Your task to perform on an android device: choose inbox layout in the gmail app Image 0: 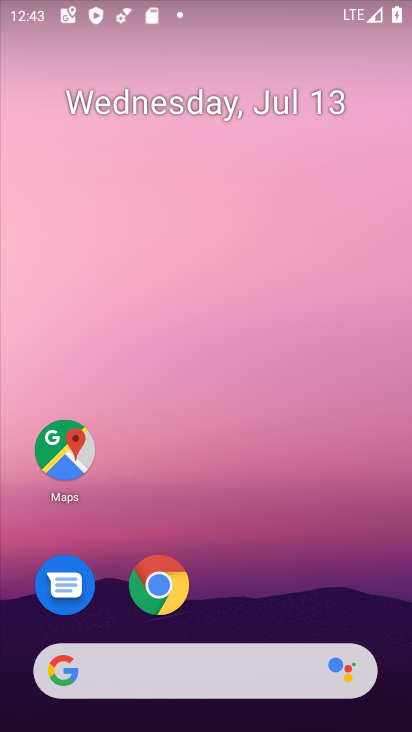
Step 0: drag from (228, 594) to (181, 25)
Your task to perform on an android device: choose inbox layout in the gmail app Image 1: 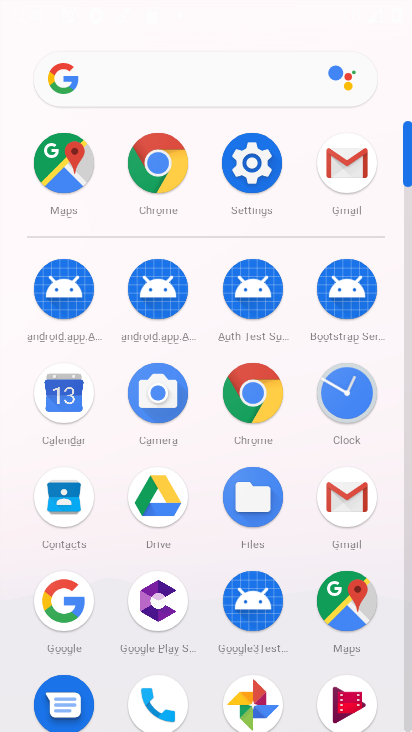
Step 1: click (350, 170)
Your task to perform on an android device: choose inbox layout in the gmail app Image 2: 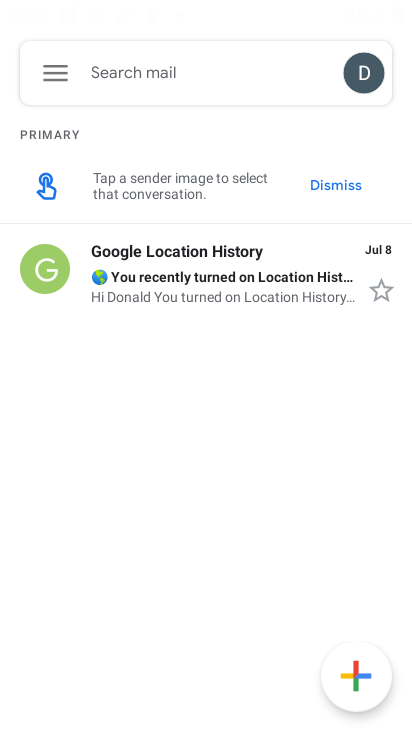
Step 2: click (57, 75)
Your task to perform on an android device: choose inbox layout in the gmail app Image 3: 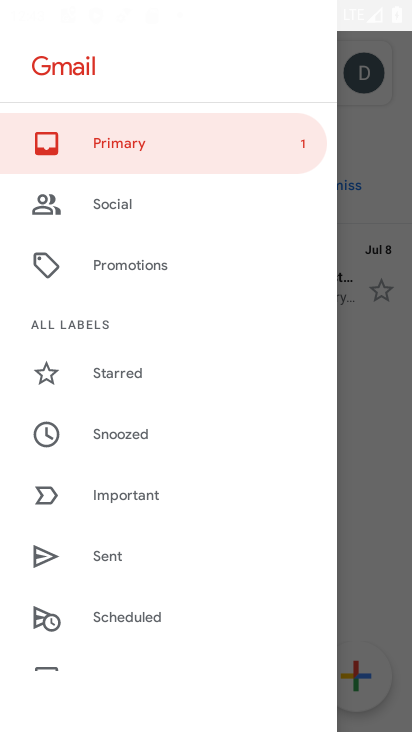
Step 3: drag from (148, 529) to (148, 189)
Your task to perform on an android device: choose inbox layout in the gmail app Image 4: 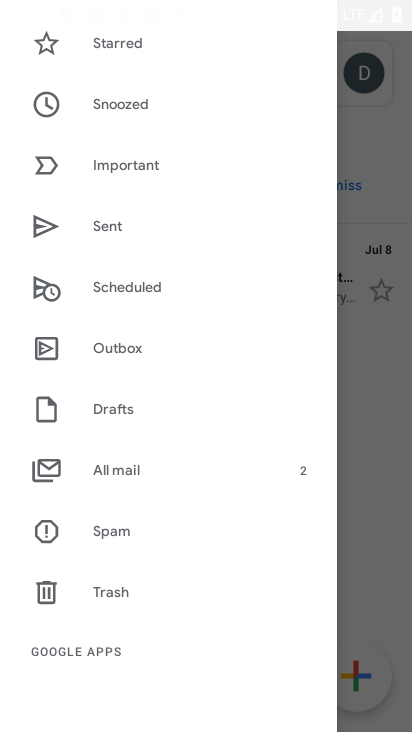
Step 4: drag from (114, 572) to (114, 318)
Your task to perform on an android device: choose inbox layout in the gmail app Image 5: 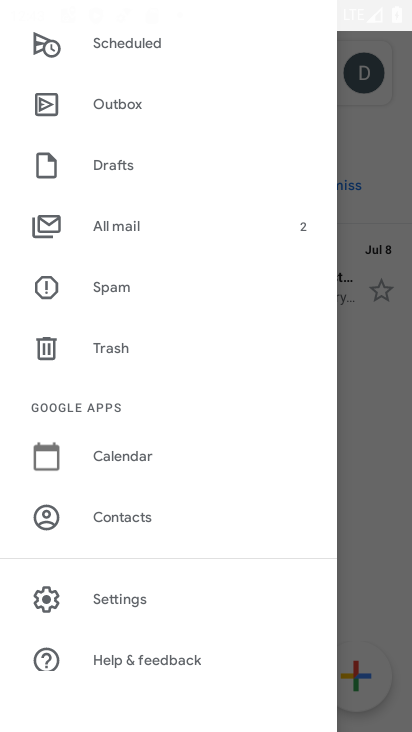
Step 5: click (102, 601)
Your task to perform on an android device: choose inbox layout in the gmail app Image 6: 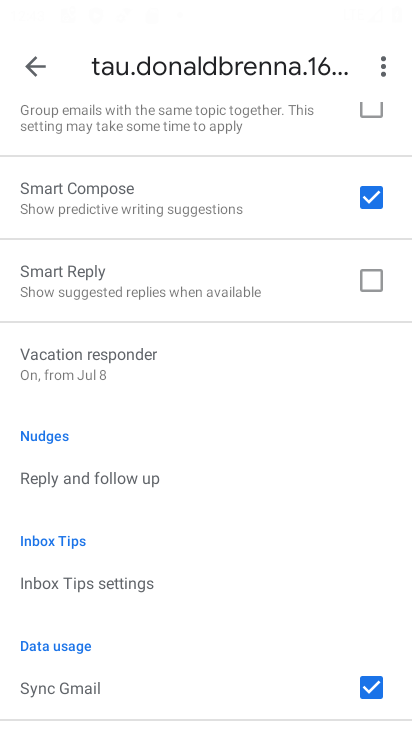
Step 6: drag from (133, 347) to (145, 280)
Your task to perform on an android device: choose inbox layout in the gmail app Image 7: 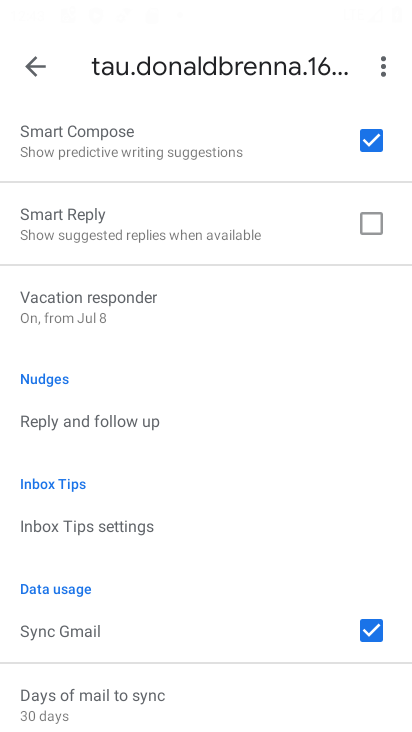
Step 7: drag from (128, 606) to (151, 247)
Your task to perform on an android device: choose inbox layout in the gmail app Image 8: 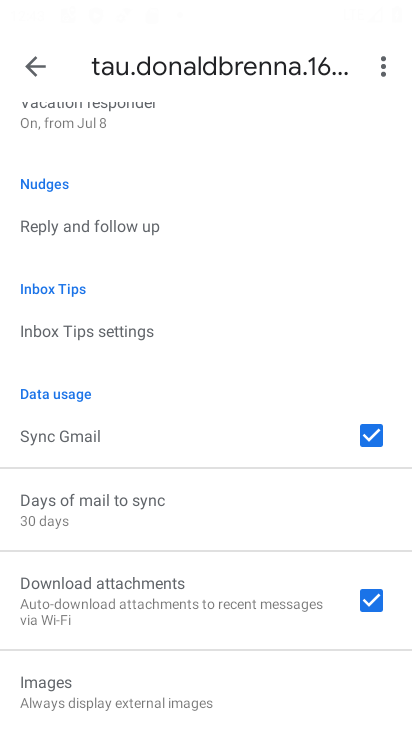
Step 8: drag from (145, 293) to (171, 613)
Your task to perform on an android device: choose inbox layout in the gmail app Image 9: 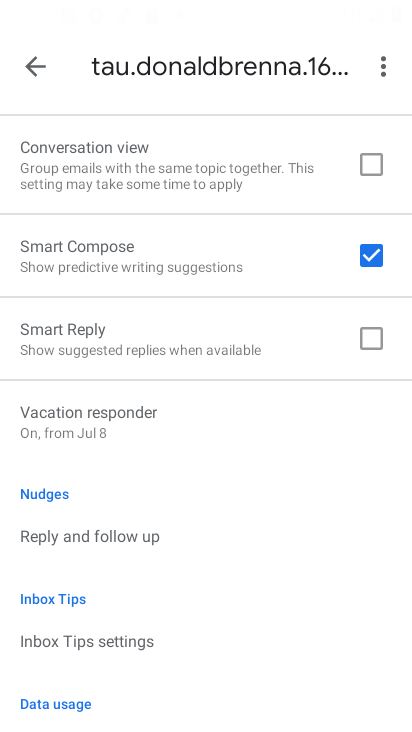
Step 9: drag from (153, 344) to (182, 650)
Your task to perform on an android device: choose inbox layout in the gmail app Image 10: 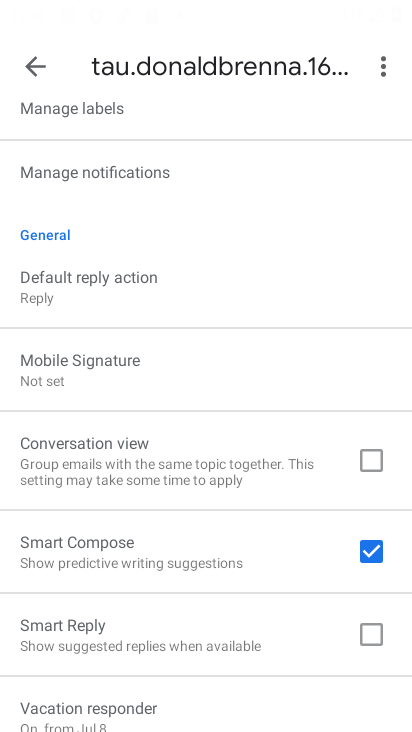
Step 10: drag from (163, 168) to (179, 514)
Your task to perform on an android device: choose inbox layout in the gmail app Image 11: 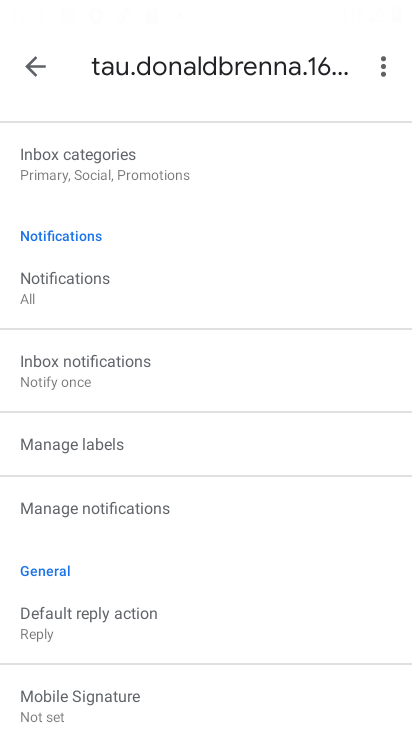
Step 11: drag from (170, 267) to (182, 619)
Your task to perform on an android device: choose inbox layout in the gmail app Image 12: 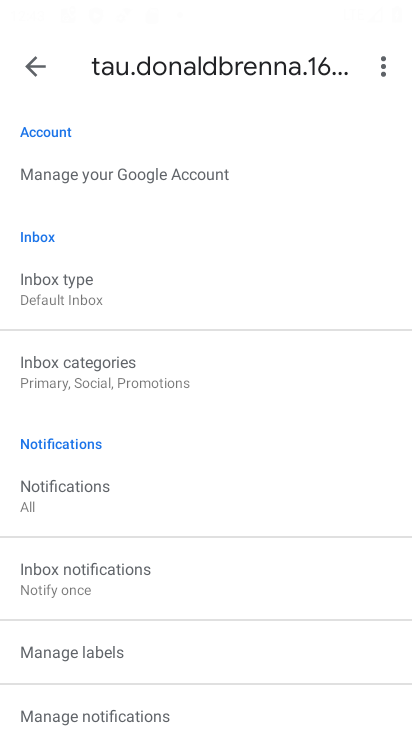
Step 12: click (83, 295)
Your task to perform on an android device: choose inbox layout in the gmail app Image 13: 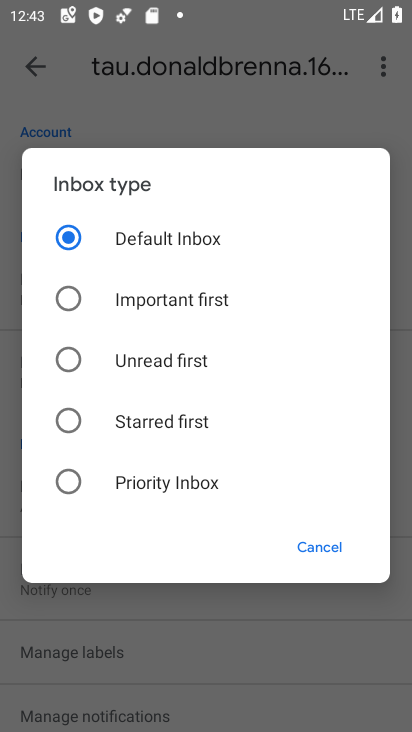
Step 13: click (74, 483)
Your task to perform on an android device: choose inbox layout in the gmail app Image 14: 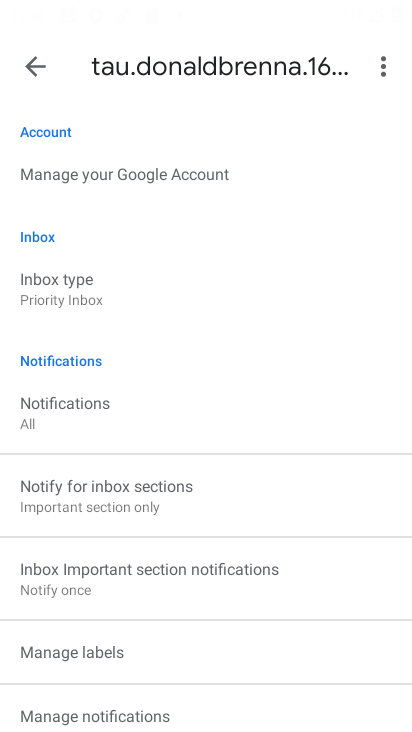
Step 14: task complete